Your task to perform on an android device: Open Wikipedia Image 0: 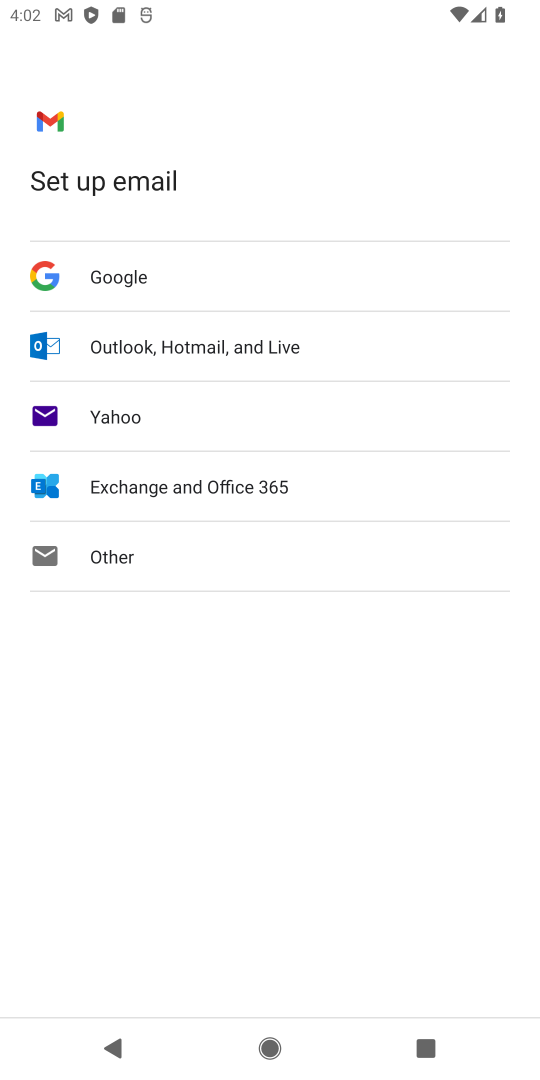
Step 0: press home button
Your task to perform on an android device: Open Wikipedia Image 1: 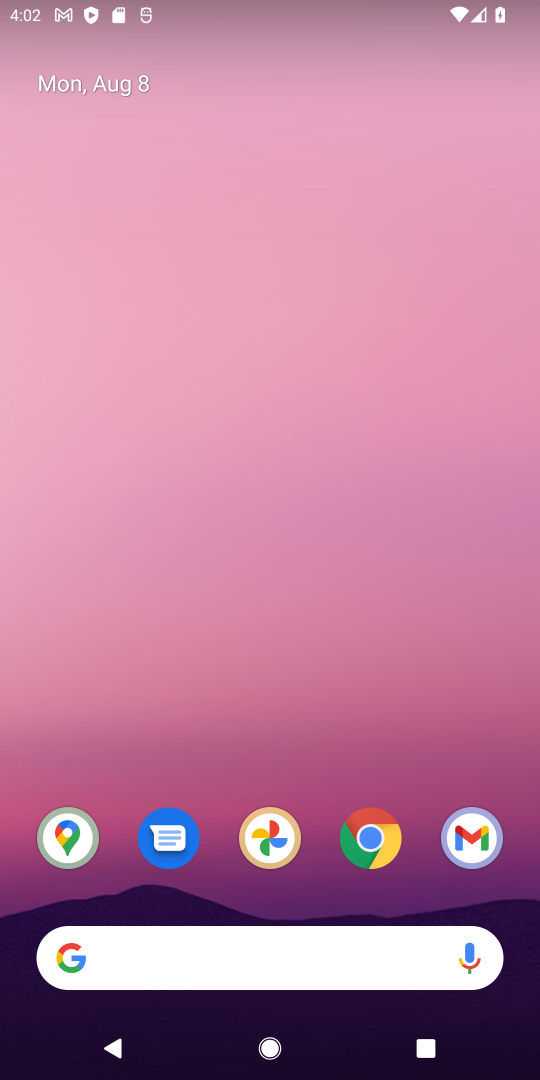
Step 1: click (367, 845)
Your task to perform on an android device: Open Wikipedia Image 2: 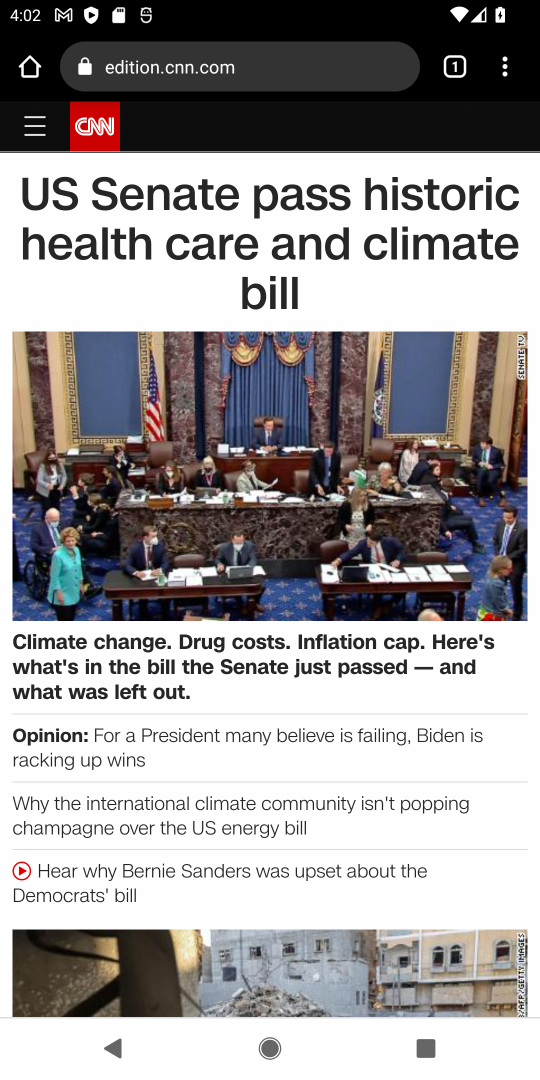
Step 2: click (305, 79)
Your task to perform on an android device: Open Wikipedia Image 3: 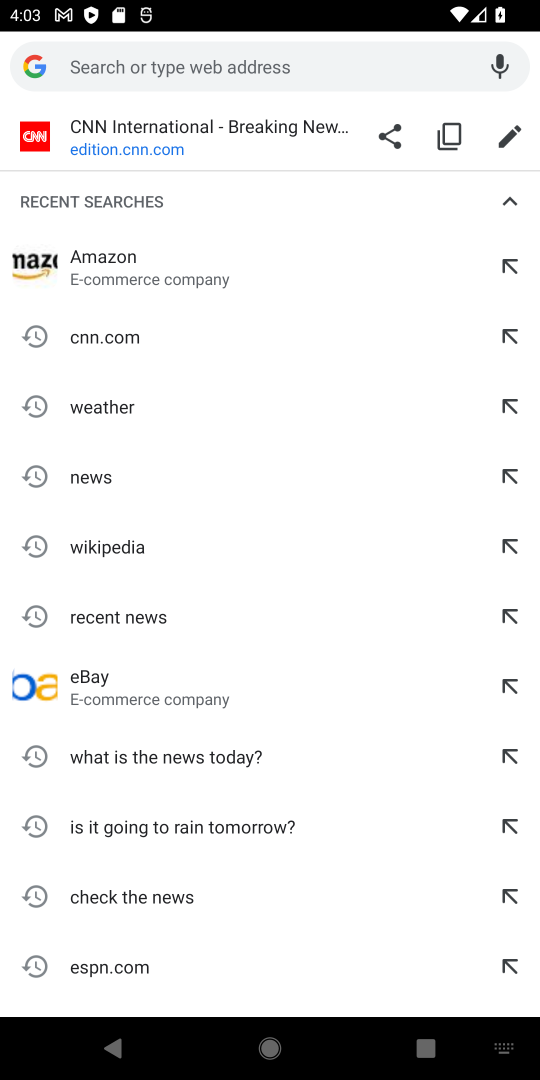
Step 3: type "Wikipedia"
Your task to perform on an android device: Open Wikipedia Image 4: 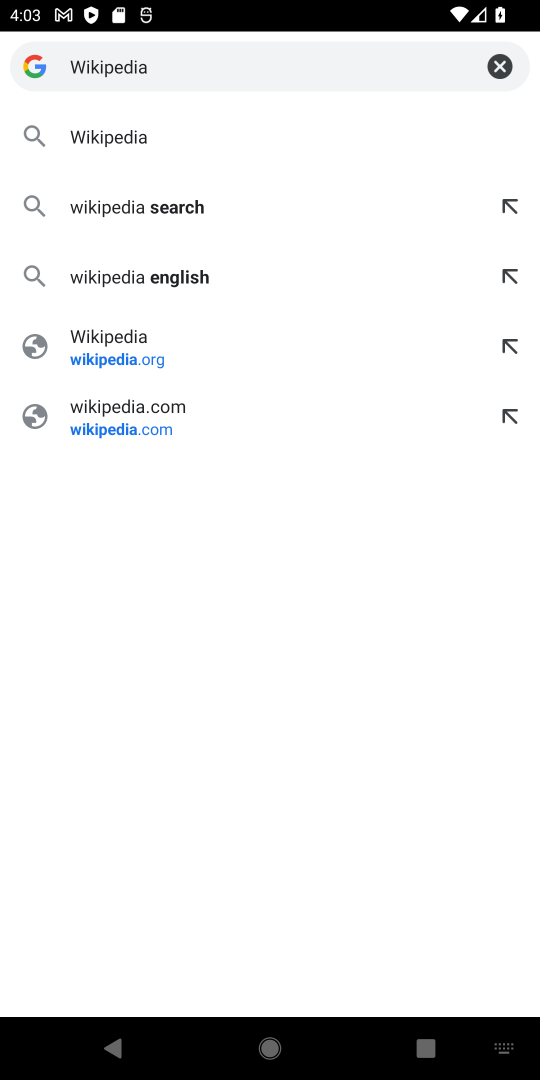
Step 4: click (113, 140)
Your task to perform on an android device: Open Wikipedia Image 5: 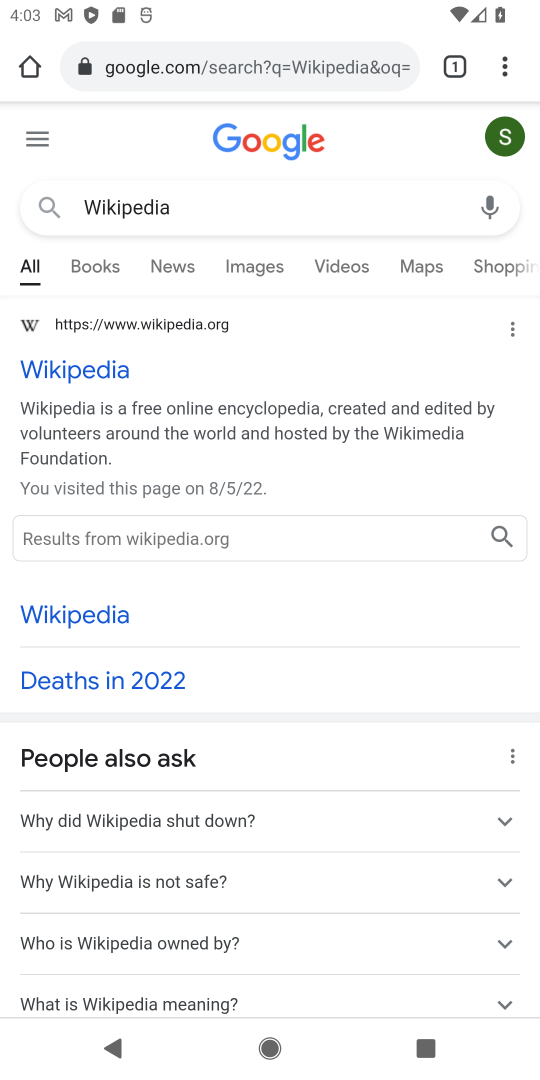
Step 5: click (95, 365)
Your task to perform on an android device: Open Wikipedia Image 6: 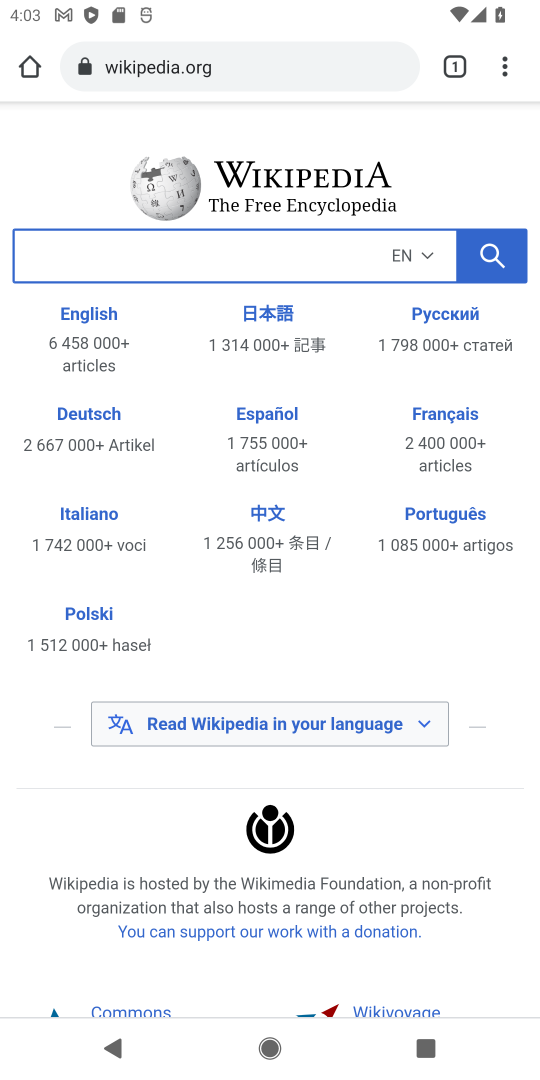
Step 6: task complete